Your task to perform on an android device: refresh tabs in the chrome app Image 0: 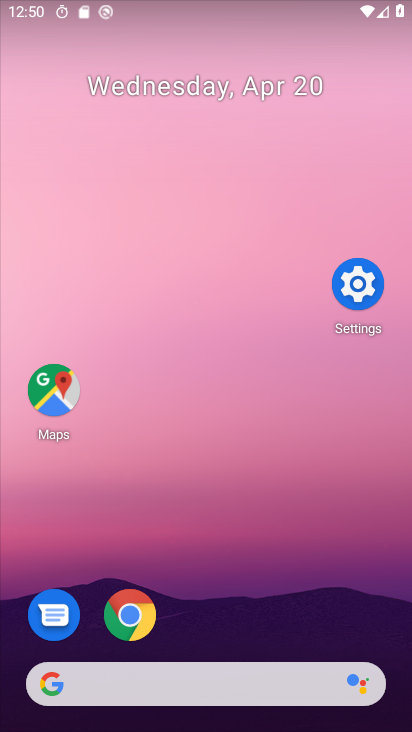
Step 0: click (136, 603)
Your task to perform on an android device: refresh tabs in the chrome app Image 1: 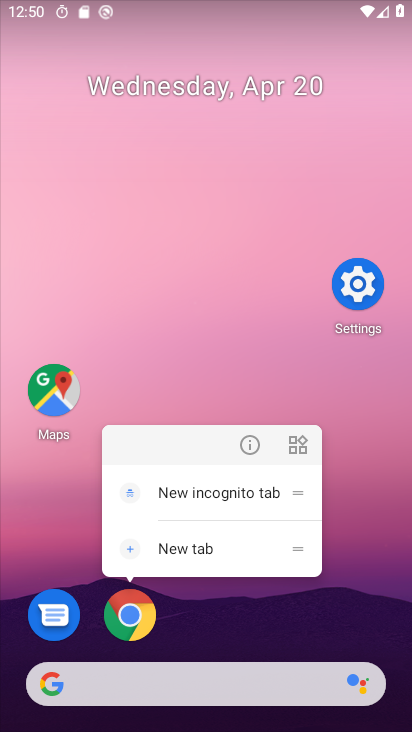
Step 1: click (247, 450)
Your task to perform on an android device: refresh tabs in the chrome app Image 2: 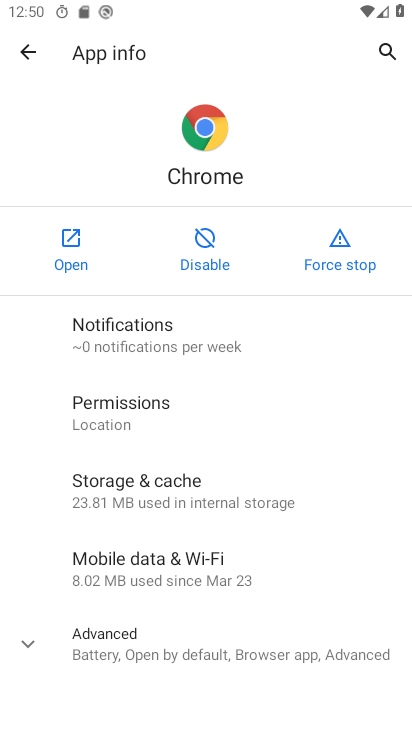
Step 2: click (71, 244)
Your task to perform on an android device: refresh tabs in the chrome app Image 3: 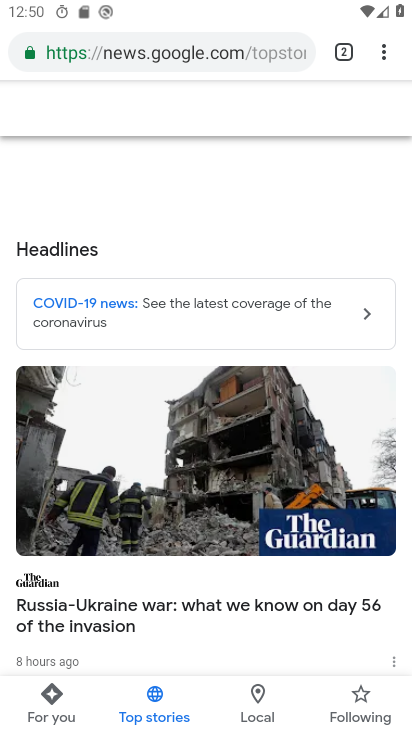
Step 3: click (383, 49)
Your task to perform on an android device: refresh tabs in the chrome app Image 4: 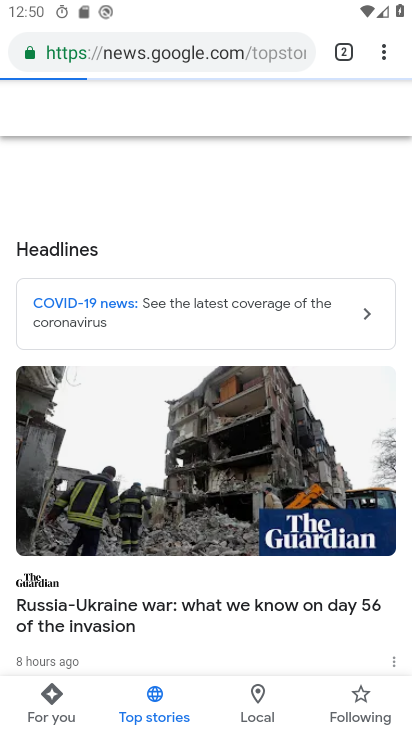
Step 4: click (383, 49)
Your task to perform on an android device: refresh tabs in the chrome app Image 5: 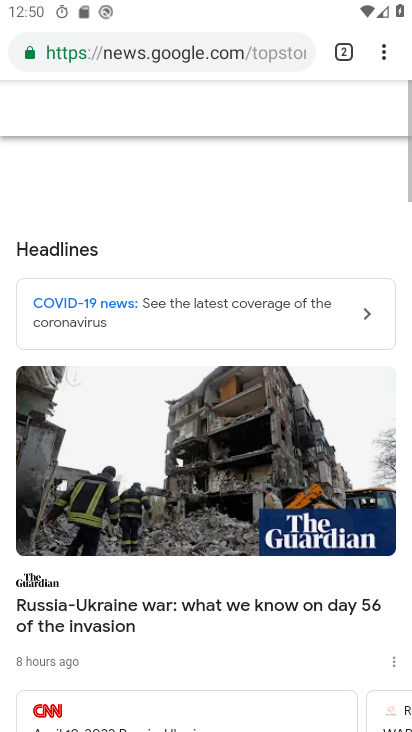
Step 5: task complete